Your task to perform on an android device: Go to Google maps Image 0: 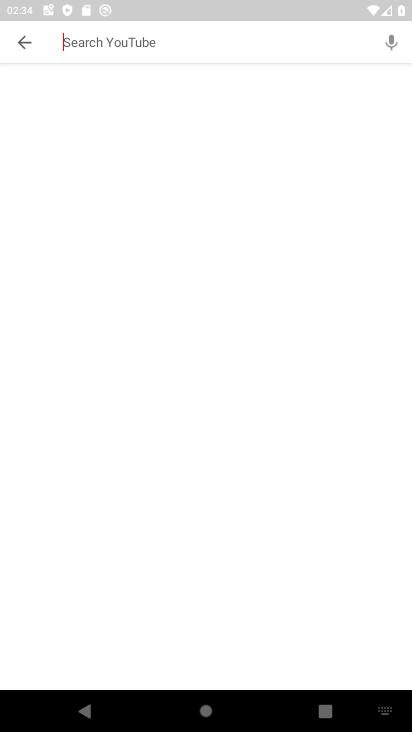
Step 0: press home button
Your task to perform on an android device: Go to Google maps Image 1: 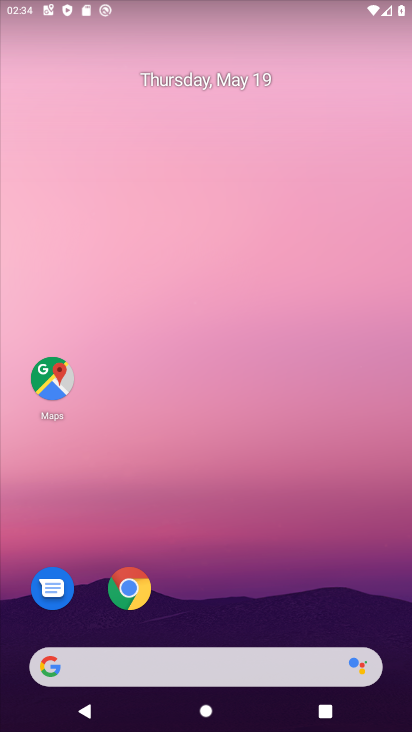
Step 1: click (58, 376)
Your task to perform on an android device: Go to Google maps Image 2: 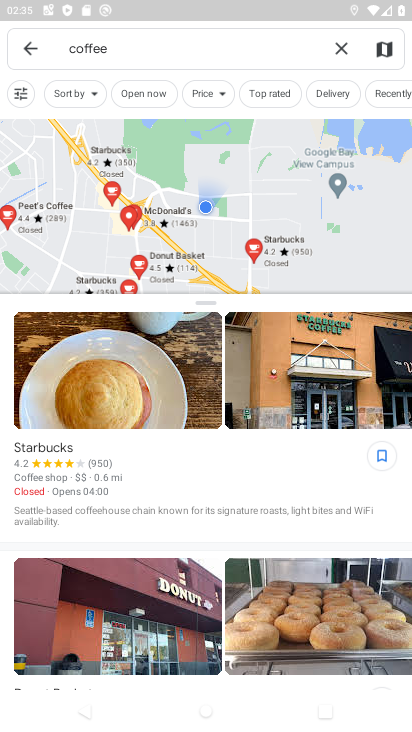
Step 2: task complete